Your task to perform on an android device: star an email in the gmail app Image 0: 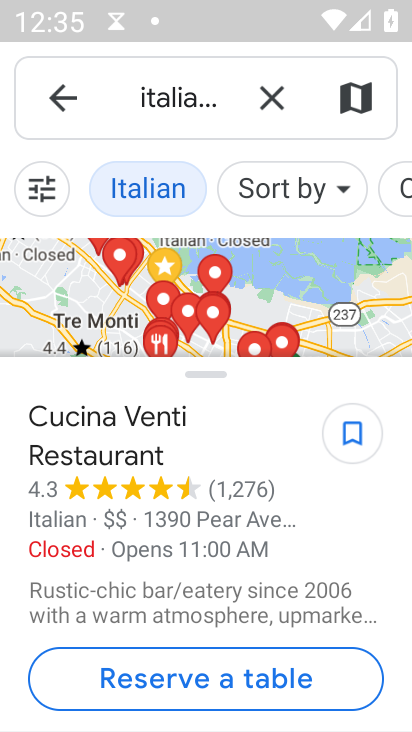
Step 0: press home button
Your task to perform on an android device: star an email in the gmail app Image 1: 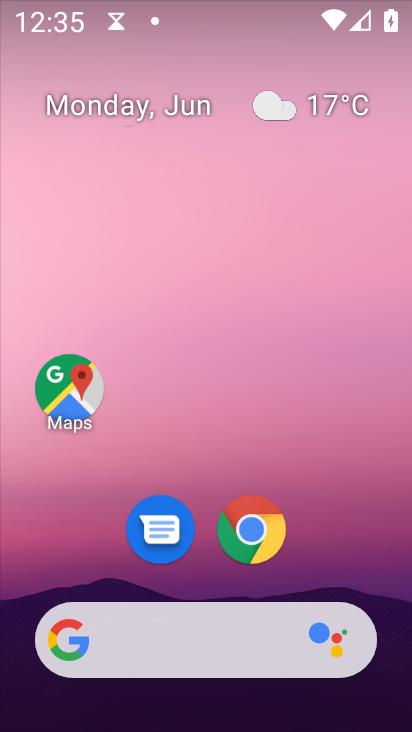
Step 1: drag from (318, 528) to (357, 33)
Your task to perform on an android device: star an email in the gmail app Image 2: 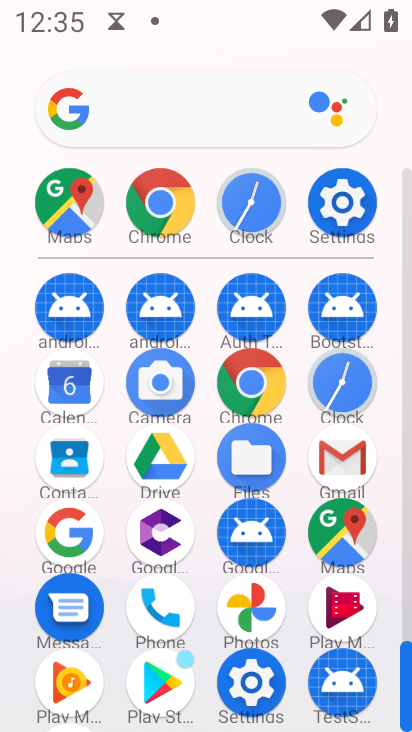
Step 2: click (360, 460)
Your task to perform on an android device: star an email in the gmail app Image 3: 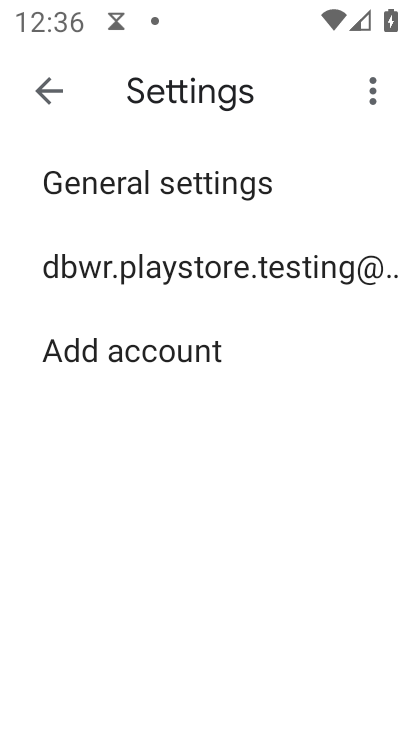
Step 3: click (56, 87)
Your task to perform on an android device: star an email in the gmail app Image 4: 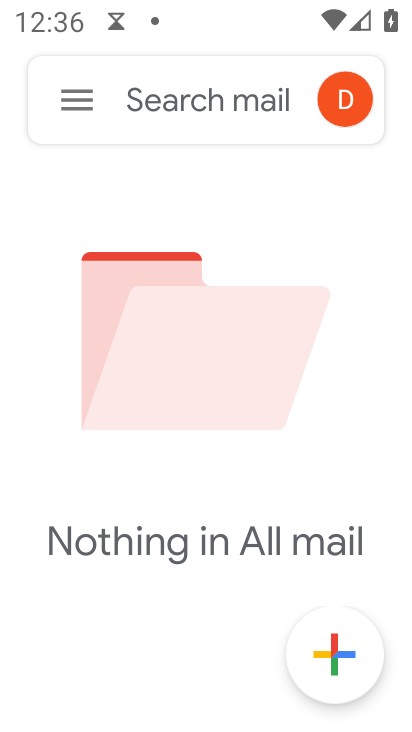
Step 4: task complete